Your task to perform on an android device: turn on bluetooth scan Image 0: 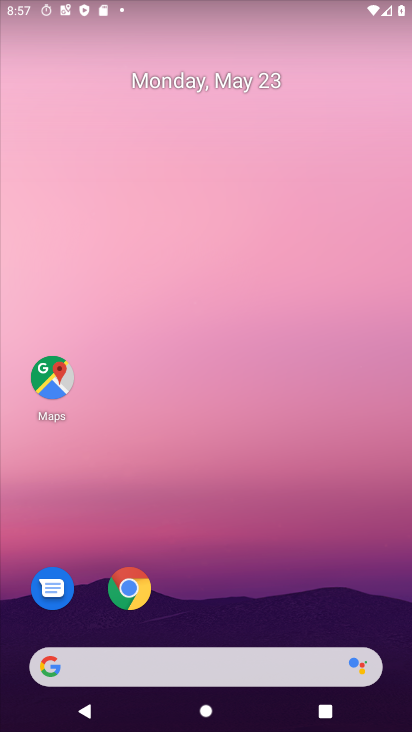
Step 0: click (399, 390)
Your task to perform on an android device: turn on bluetooth scan Image 1: 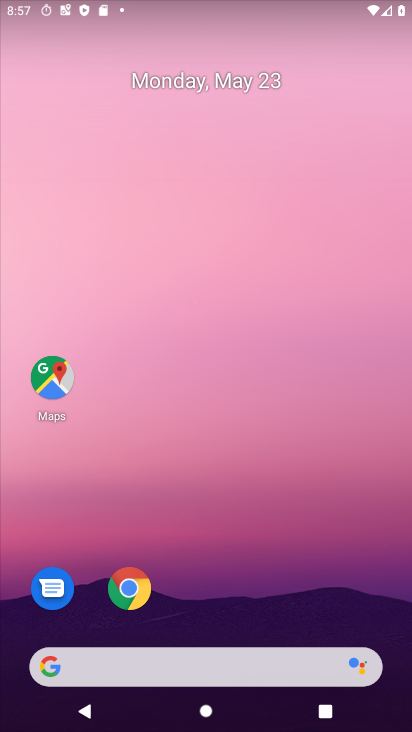
Step 1: drag from (383, 644) to (332, 124)
Your task to perform on an android device: turn on bluetooth scan Image 2: 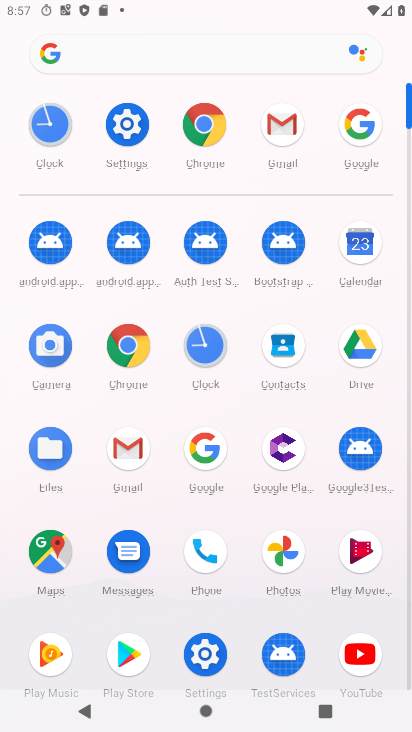
Step 2: click (196, 646)
Your task to perform on an android device: turn on bluetooth scan Image 3: 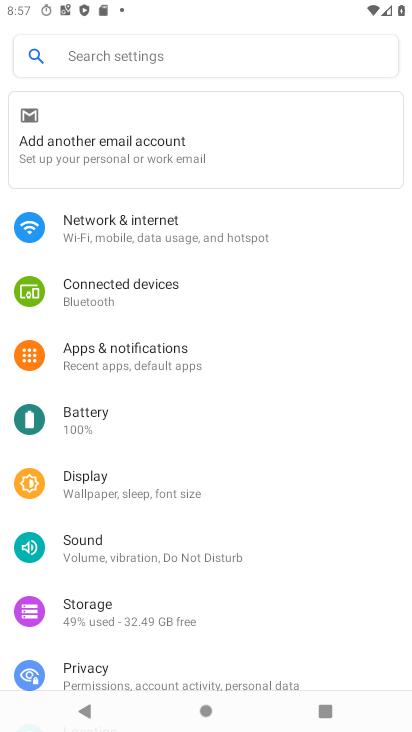
Step 3: drag from (343, 658) to (357, 346)
Your task to perform on an android device: turn on bluetooth scan Image 4: 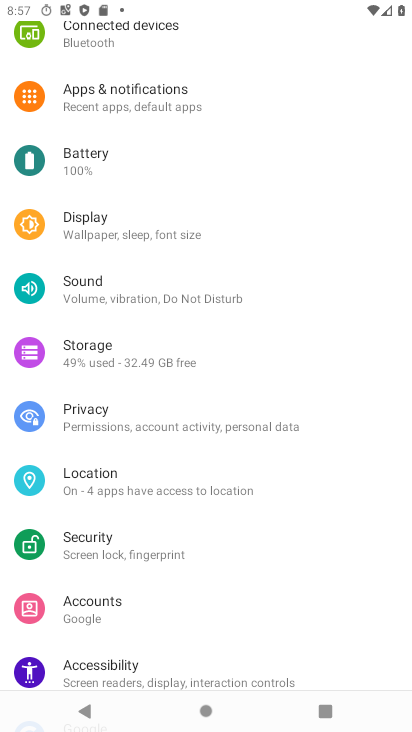
Step 4: click (110, 481)
Your task to perform on an android device: turn on bluetooth scan Image 5: 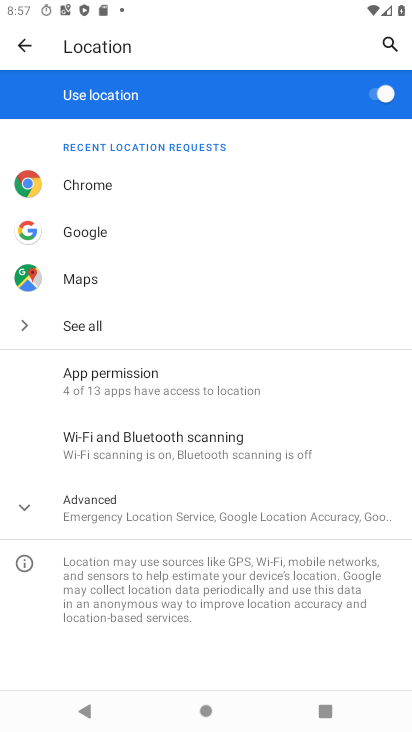
Step 5: click (172, 448)
Your task to perform on an android device: turn on bluetooth scan Image 6: 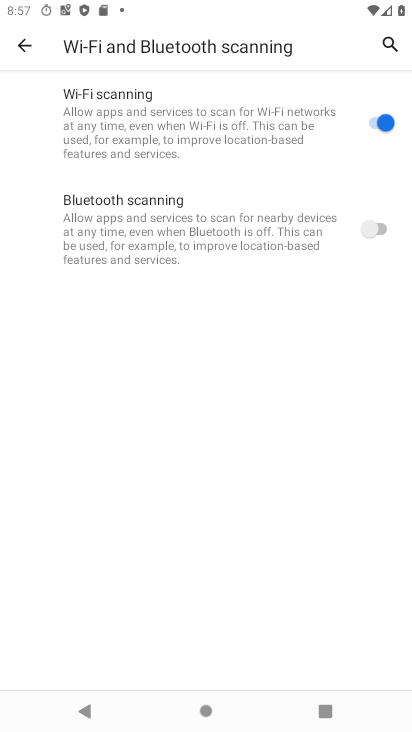
Step 6: click (375, 226)
Your task to perform on an android device: turn on bluetooth scan Image 7: 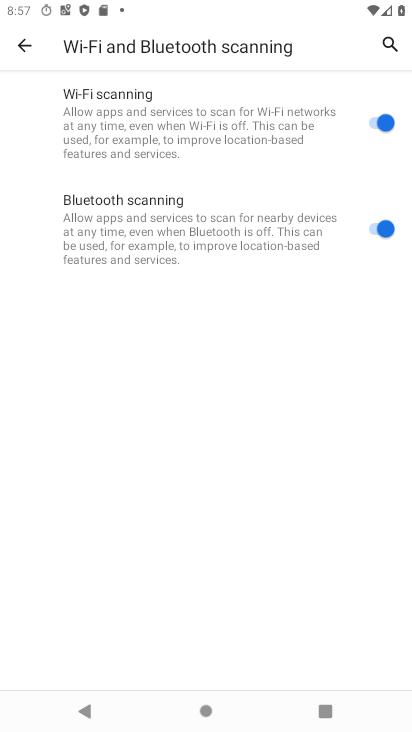
Step 7: task complete